Your task to perform on an android device: Go to Yahoo.com Image 0: 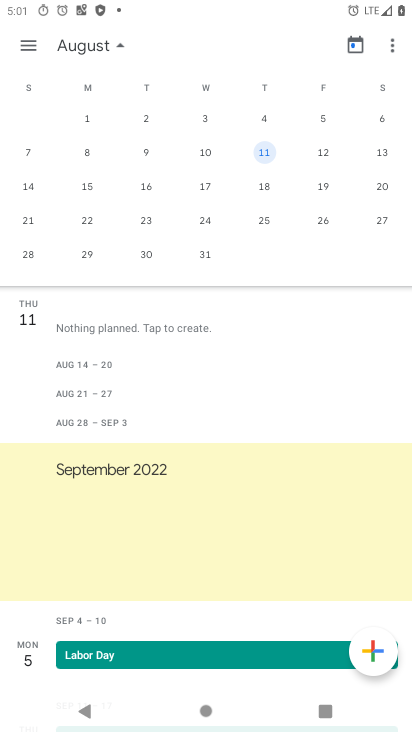
Step 0: task complete